Your task to perform on an android device: toggle notifications settings in the gmail app Image 0: 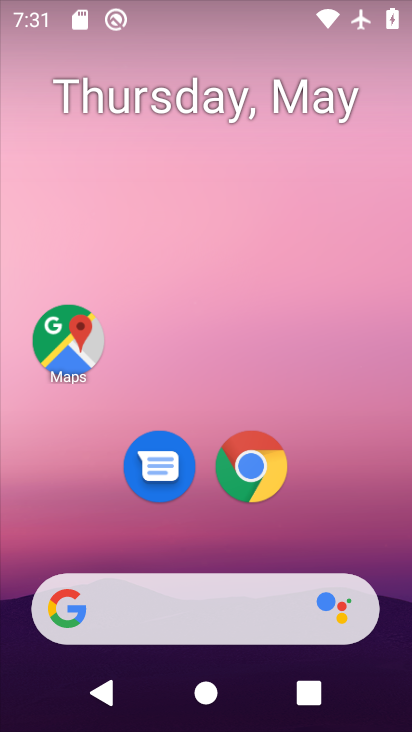
Step 0: drag from (366, 483) to (340, 49)
Your task to perform on an android device: toggle notifications settings in the gmail app Image 1: 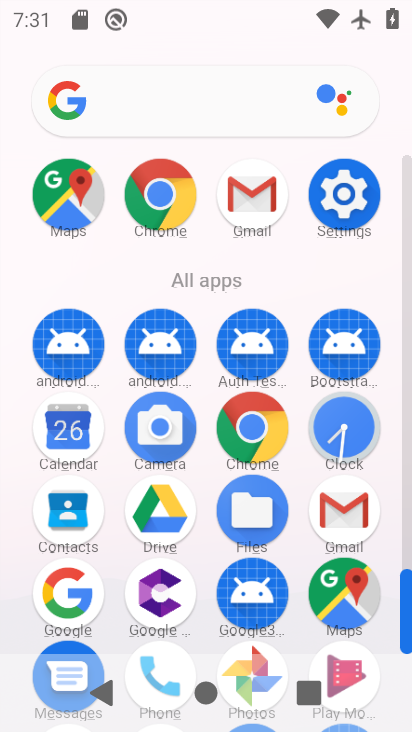
Step 1: click (266, 183)
Your task to perform on an android device: toggle notifications settings in the gmail app Image 2: 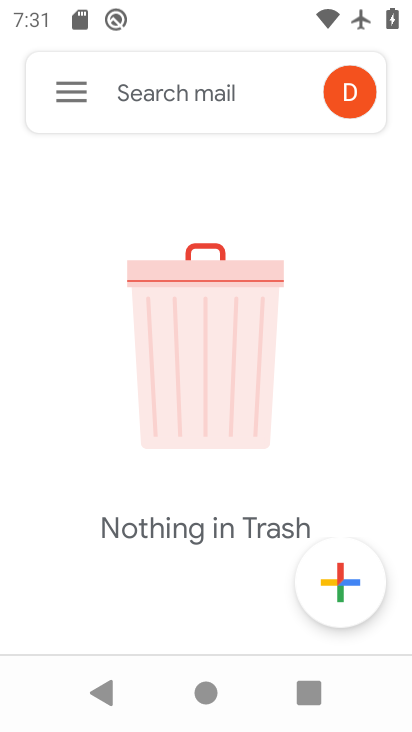
Step 2: click (67, 88)
Your task to perform on an android device: toggle notifications settings in the gmail app Image 3: 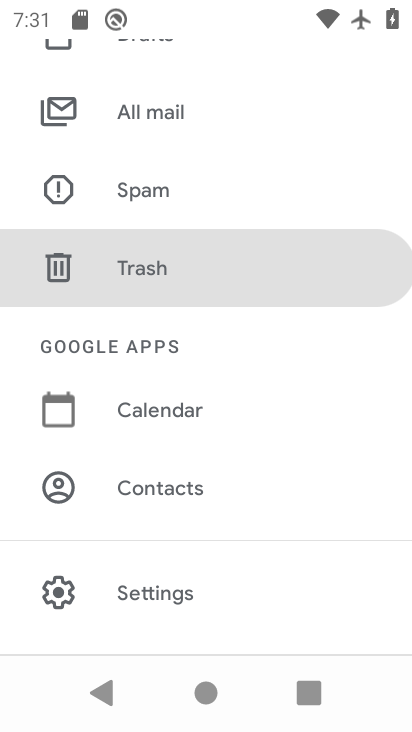
Step 3: click (162, 601)
Your task to perform on an android device: toggle notifications settings in the gmail app Image 4: 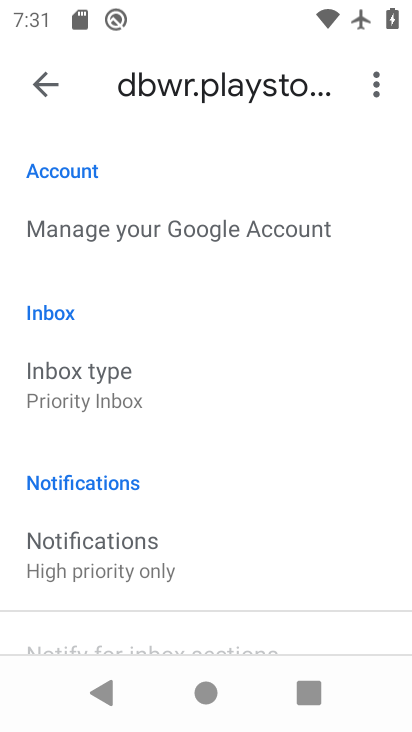
Step 4: drag from (149, 505) to (158, 198)
Your task to perform on an android device: toggle notifications settings in the gmail app Image 5: 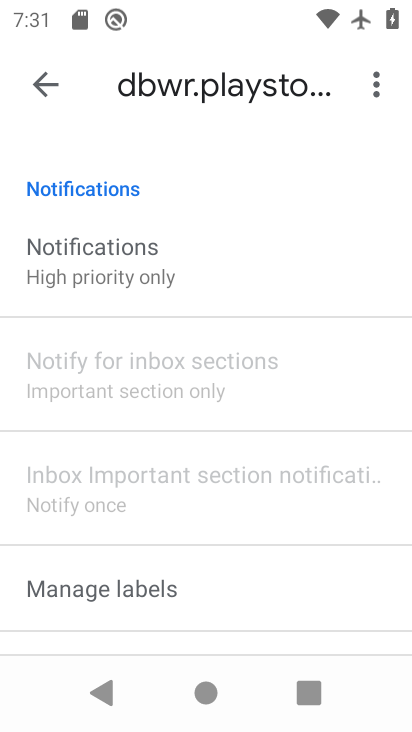
Step 5: click (108, 569)
Your task to perform on an android device: toggle notifications settings in the gmail app Image 6: 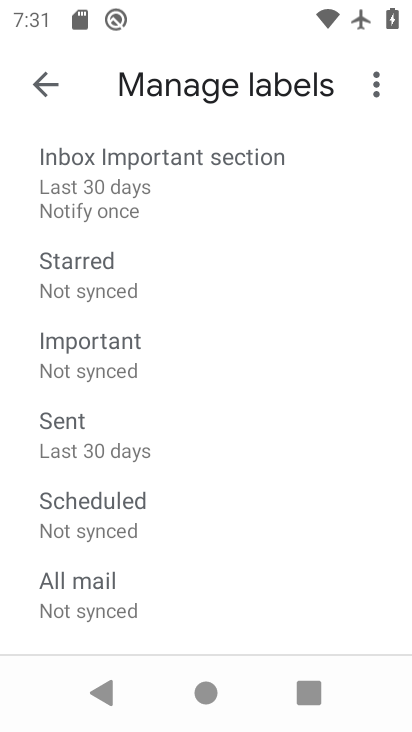
Step 6: task complete